Your task to perform on an android device: Go to accessibility settings Image 0: 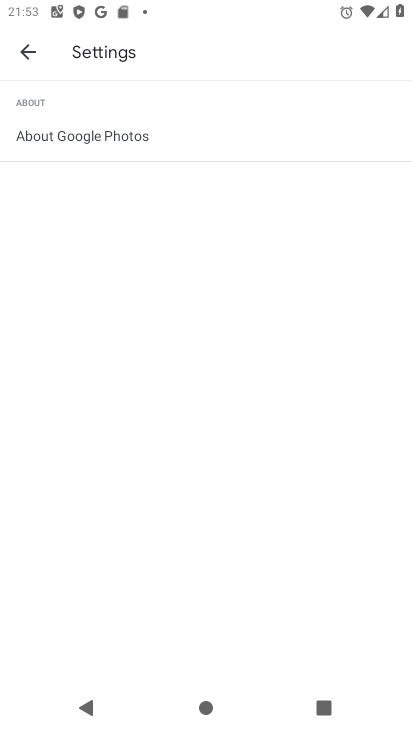
Step 0: press home button
Your task to perform on an android device: Go to accessibility settings Image 1: 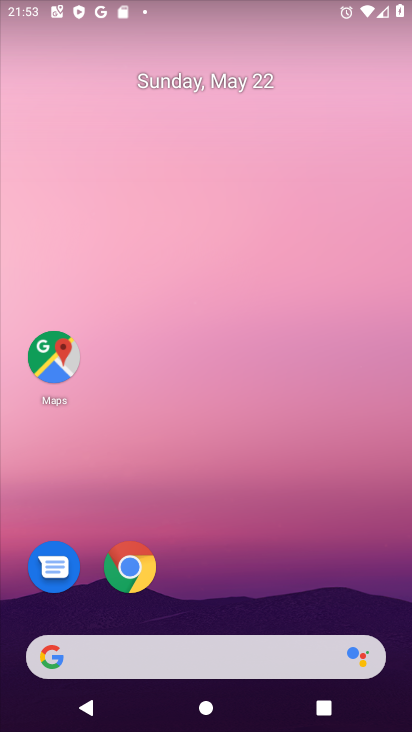
Step 1: drag from (250, 612) to (278, 8)
Your task to perform on an android device: Go to accessibility settings Image 2: 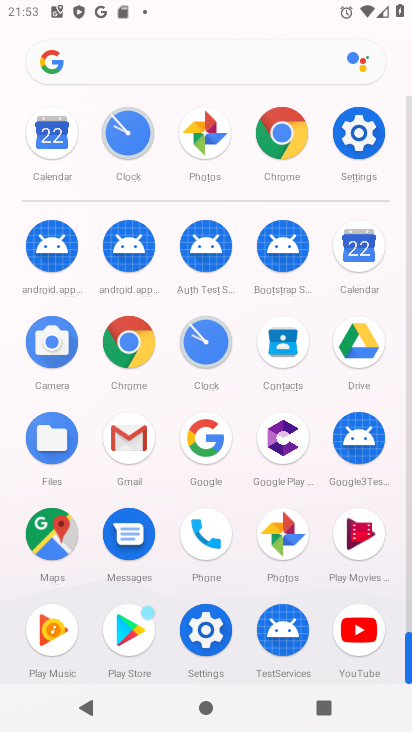
Step 2: click (202, 620)
Your task to perform on an android device: Go to accessibility settings Image 3: 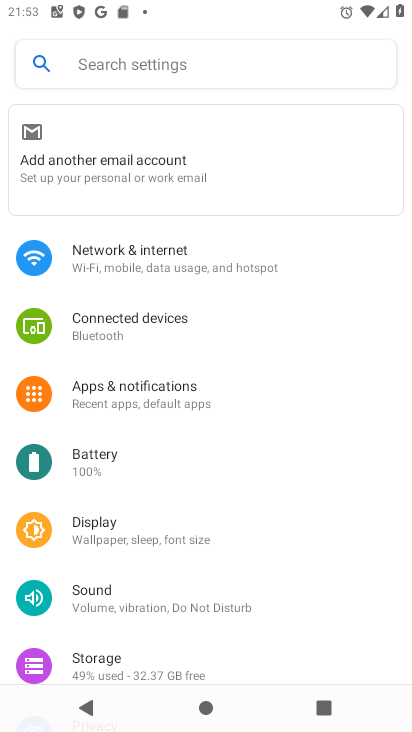
Step 3: drag from (159, 619) to (194, 179)
Your task to perform on an android device: Go to accessibility settings Image 4: 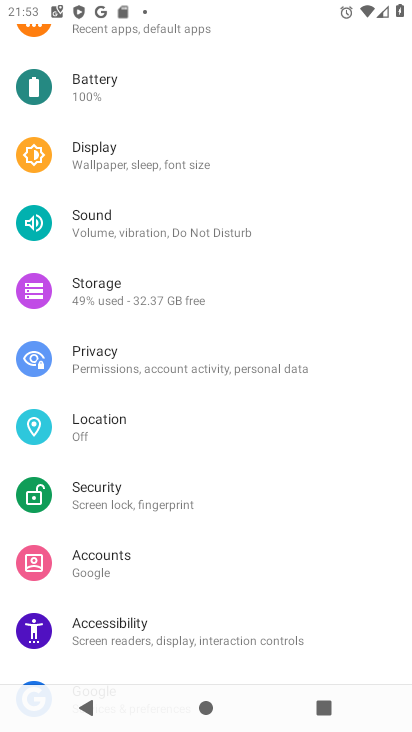
Step 4: click (143, 631)
Your task to perform on an android device: Go to accessibility settings Image 5: 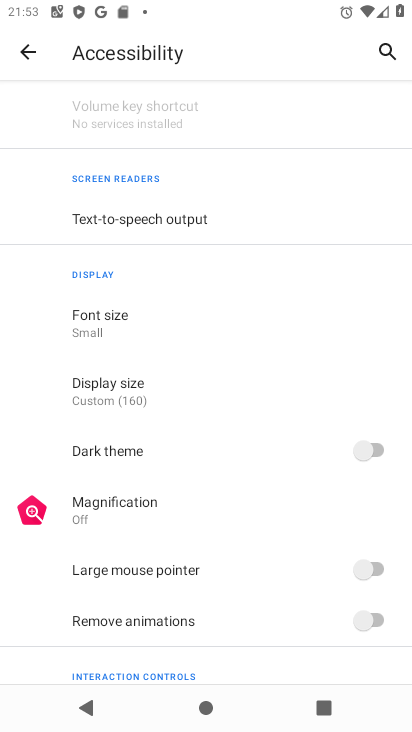
Step 5: task complete